Your task to perform on an android device: Open notification settings Image 0: 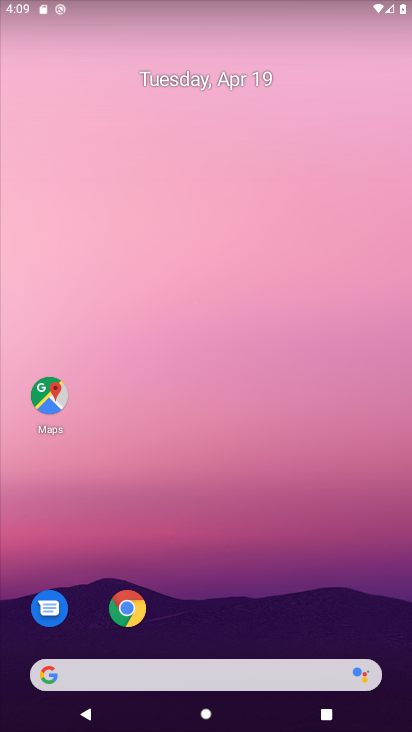
Step 0: drag from (225, 527) to (223, 128)
Your task to perform on an android device: Open notification settings Image 1: 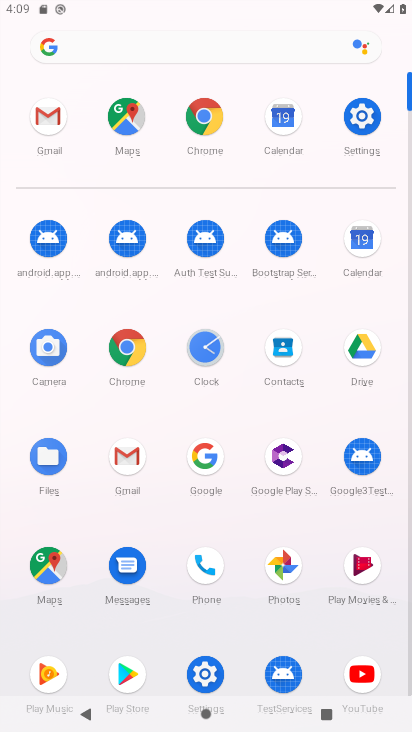
Step 1: click (369, 112)
Your task to perform on an android device: Open notification settings Image 2: 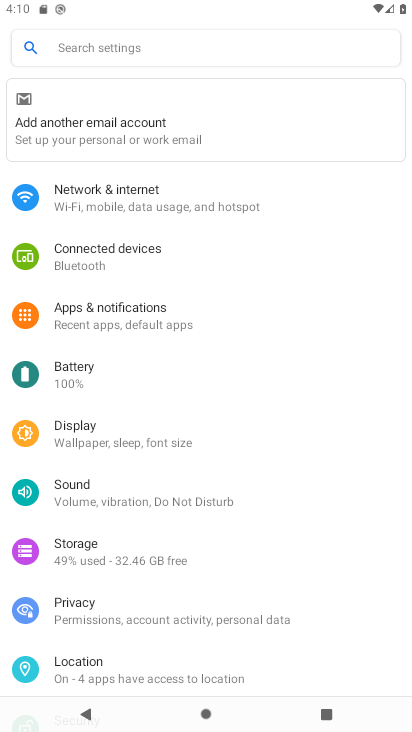
Step 2: click (118, 330)
Your task to perform on an android device: Open notification settings Image 3: 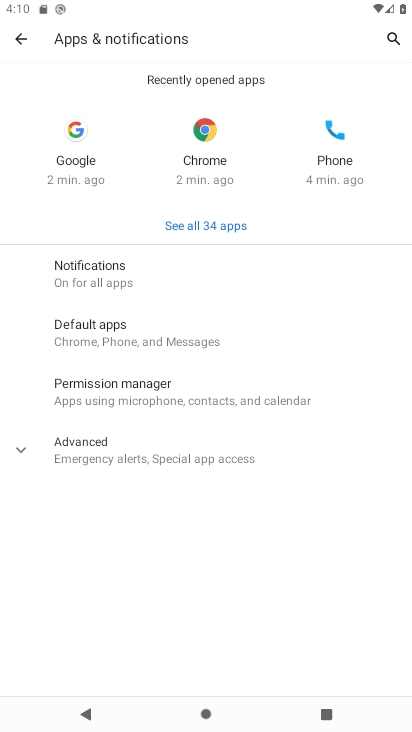
Step 3: click (106, 285)
Your task to perform on an android device: Open notification settings Image 4: 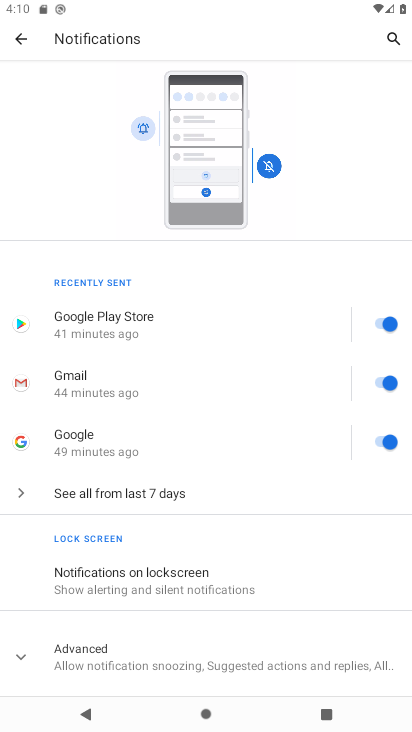
Step 4: task complete